Your task to perform on an android device: open the mobile data screen to see how much data has been used Image 0: 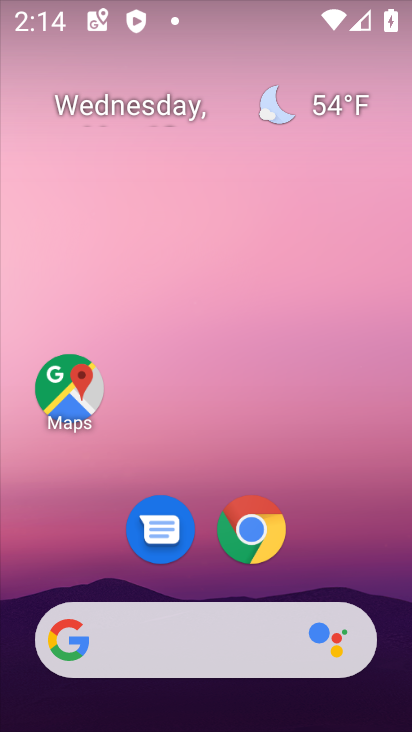
Step 0: drag from (186, 597) to (291, 87)
Your task to perform on an android device: open the mobile data screen to see how much data has been used Image 1: 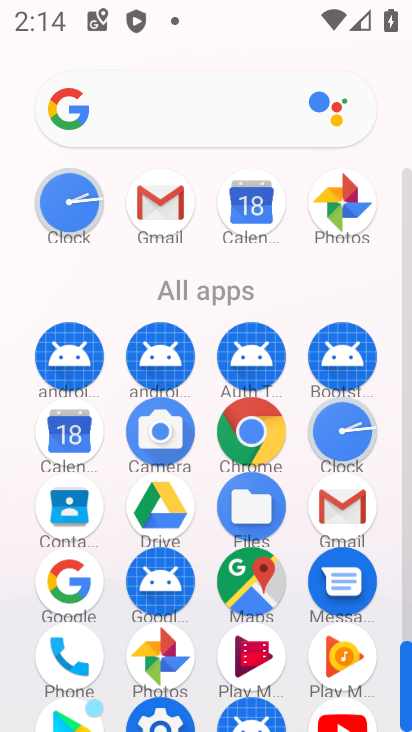
Step 1: click (152, 719)
Your task to perform on an android device: open the mobile data screen to see how much data has been used Image 2: 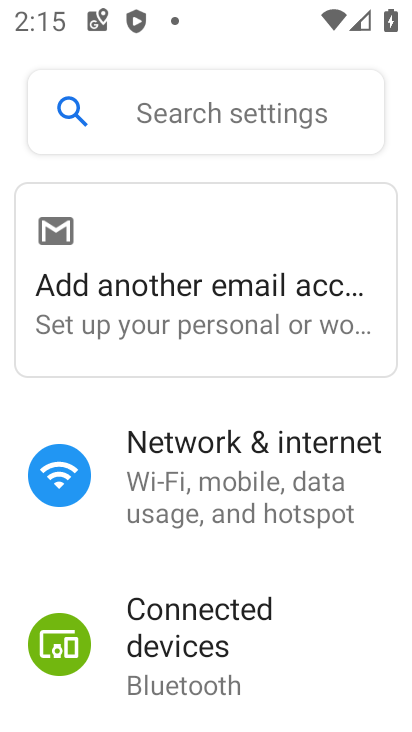
Step 2: drag from (217, 633) to (257, 322)
Your task to perform on an android device: open the mobile data screen to see how much data has been used Image 3: 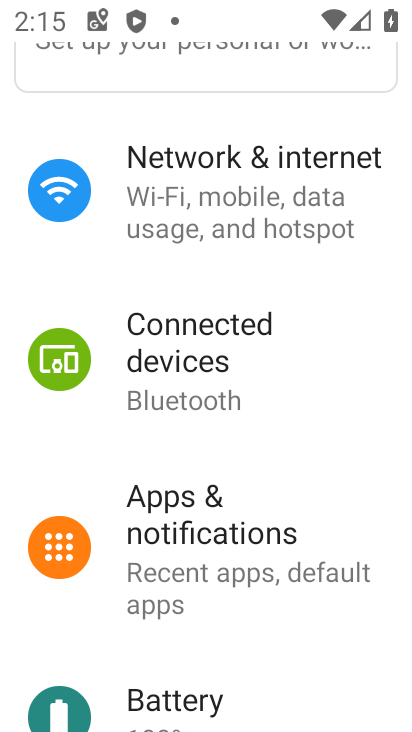
Step 3: click (205, 225)
Your task to perform on an android device: open the mobile data screen to see how much data has been used Image 4: 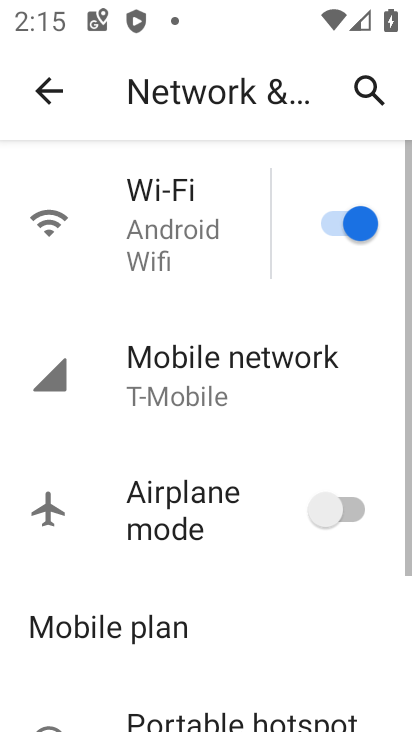
Step 4: click (185, 349)
Your task to perform on an android device: open the mobile data screen to see how much data has been used Image 5: 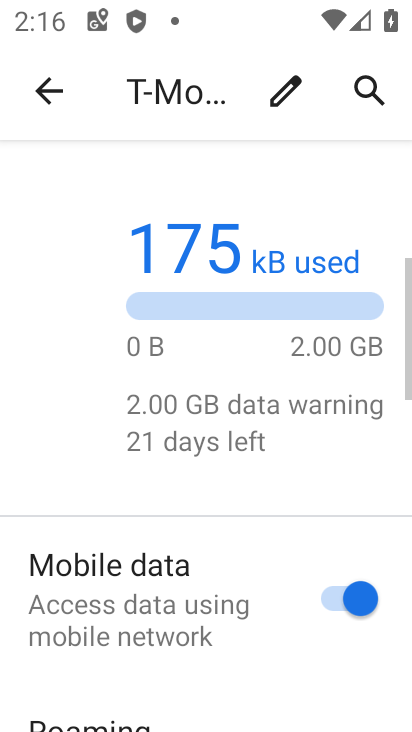
Step 5: drag from (111, 668) to (266, 119)
Your task to perform on an android device: open the mobile data screen to see how much data has been used Image 6: 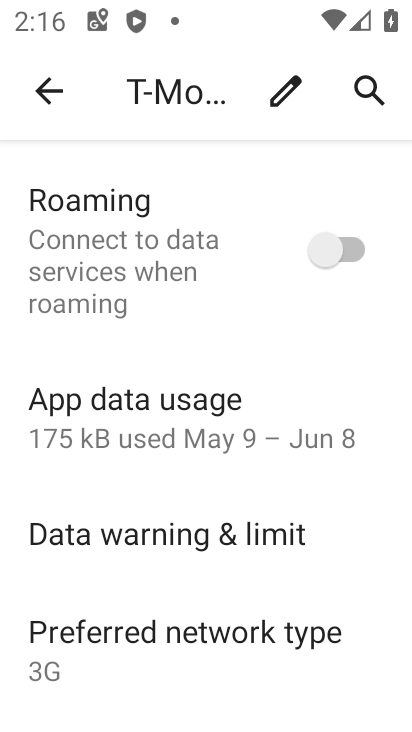
Step 6: click (147, 434)
Your task to perform on an android device: open the mobile data screen to see how much data has been used Image 7: 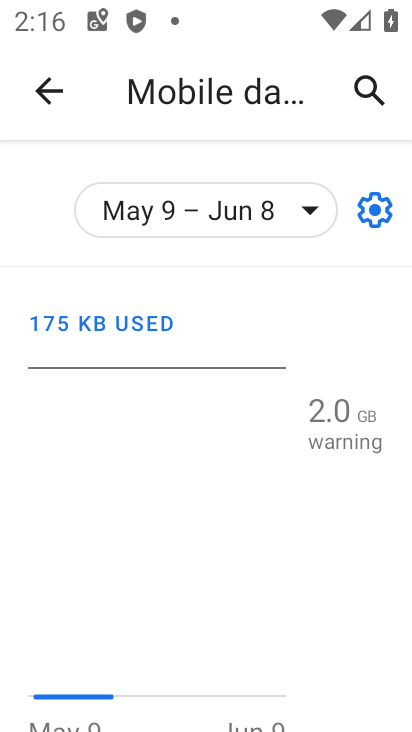
Step 7: task complete